Your task to perform on an android device: Open the calendar app, open the side menu, and click the "Day" option Image 0: 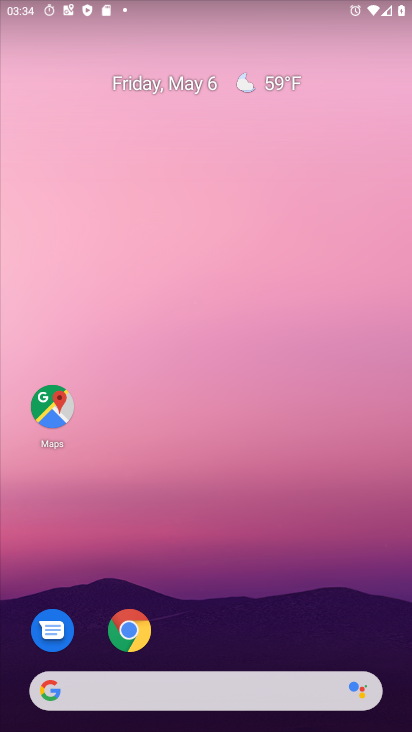
Step 0: drag from (209, 640) to (216, 261)
Your task to perform on an android device: Open the calendar app, open the side menu, and click the "Day" option Image 1: 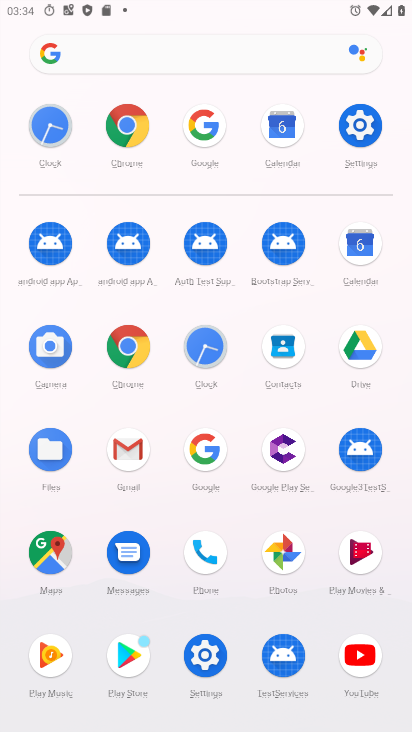
Step 1: click (366, 235)
Your task to perform on an android device: Open the calendar app, open the side menu, and click the "Day" option Image 2: 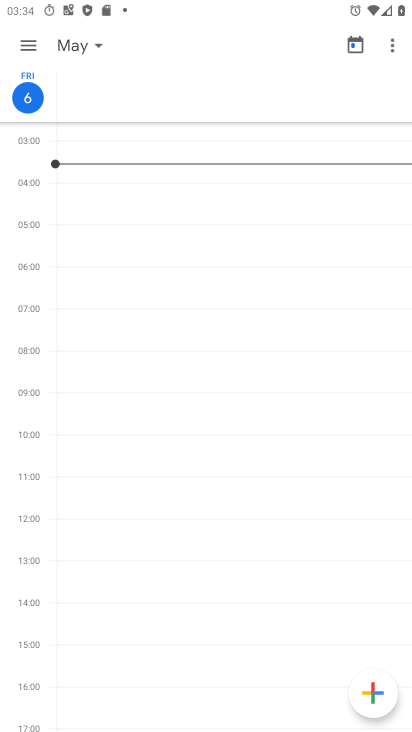
Step 2: click (34, 49)
Your task to perform on an android device: Open the calendar app, open the side menu, and click the "Day" option Image 3: 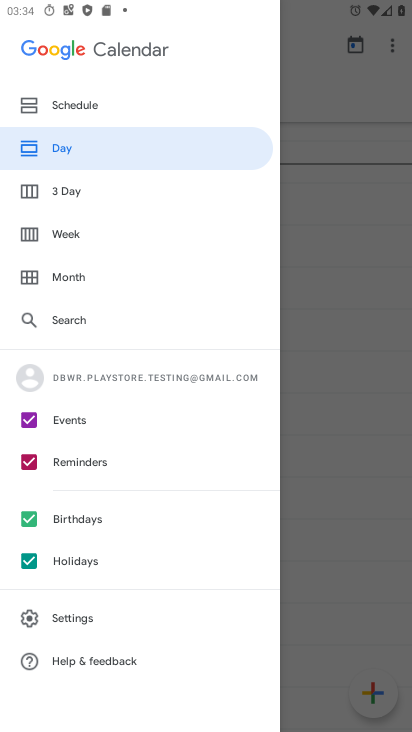
Step 3: click (83, 156)
Your task to perform on an android device: Open the calendar app, open the side menu, and click the "Day" option Image 4: 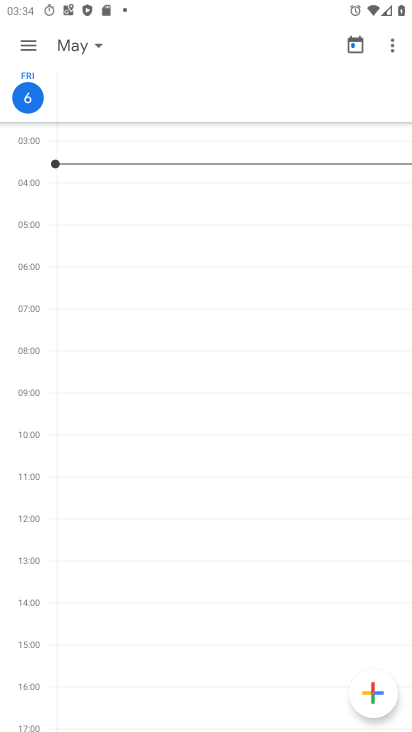
Step 4: task complete